Your task to perform on an android device: Open location settings Image 0: 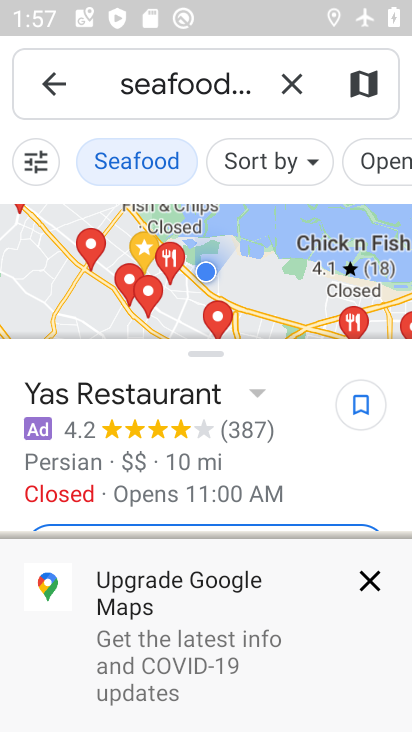
Step 0: press home button
Your task to perform on an android device: Open location settings Image 1: 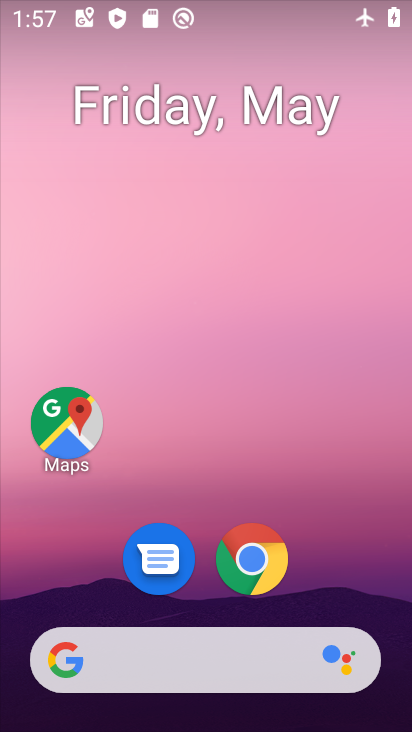
Step 1: drag from (295, 573) to (290, 128)
Your task to perform on an android device: Open location settings Image 2: 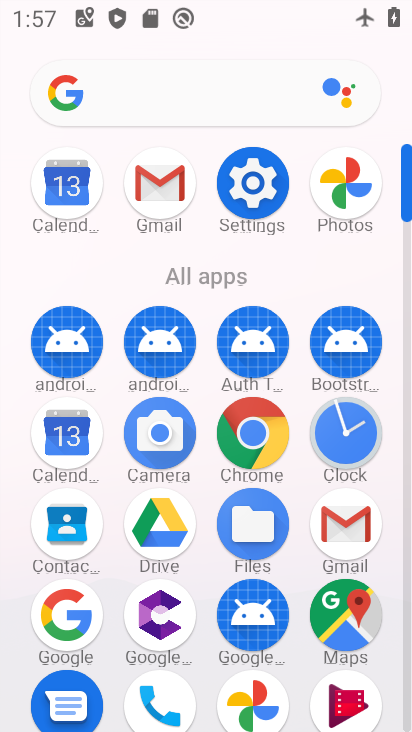
Step 2: click (238, 175)
Your task to perform on an android device: Open location settings Image 3: 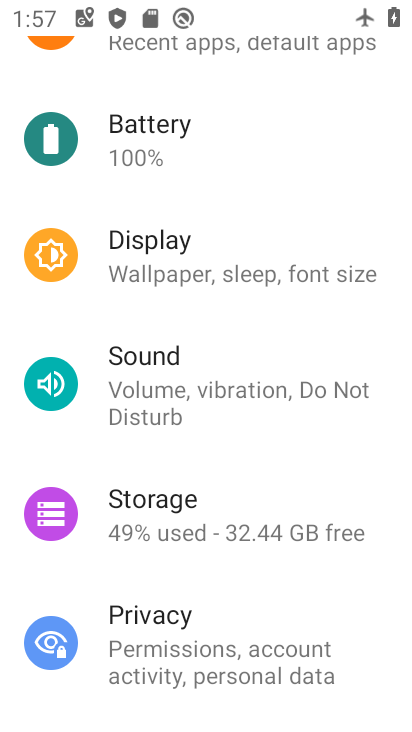
Step 3: drag from (226, 605) to (190, 201)
Your task to perform on an android device: Open location settings Image 4: 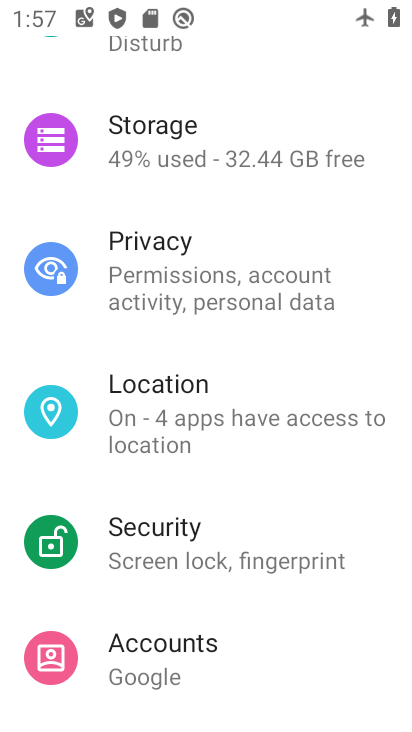
Step 4: click (197, 391)
Your task to perform on an android device: Open location settings Image 5: 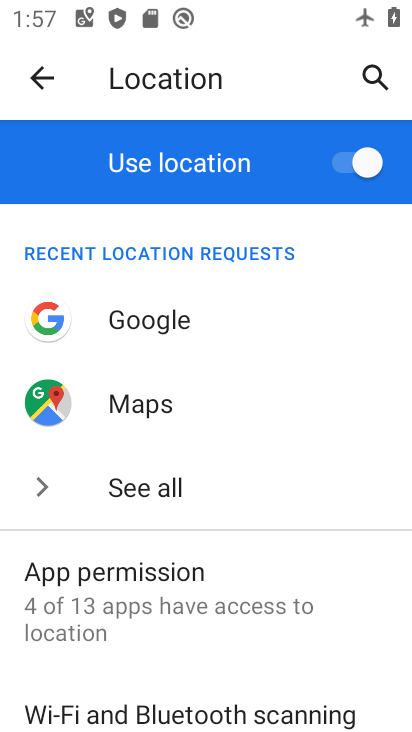
Step 5: task complete